Your task to perform on an android device: turn on javascript in the chrome app Image 0: 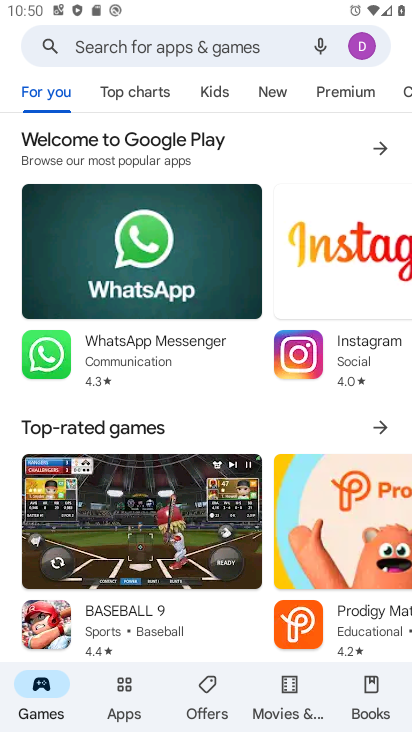
Step 0: press home button
Your task to perform on an android device: turn on javascript in the chrome app Image 1: 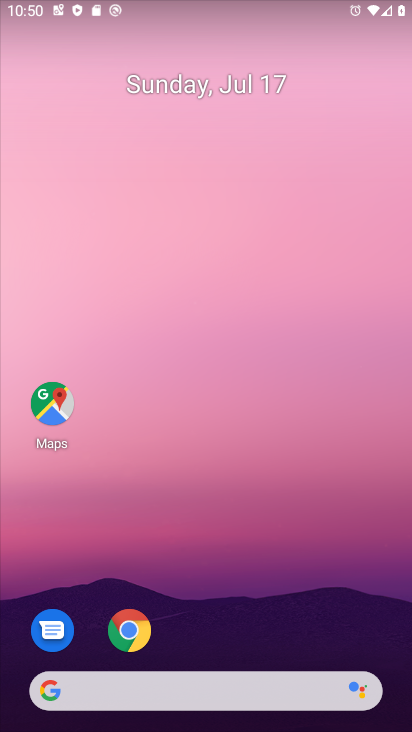
Step 1: drag from (359, 564) to (382, 55)
Your task to perform on an android device: turn on javascript in the chrome app Image 2: 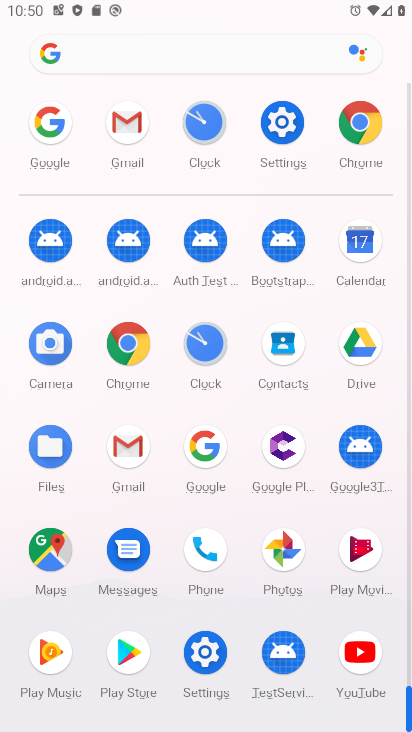
Step 2: click (140, 346)
Your task to perform on an android device: turn on javascript in the chrome app Image 3: 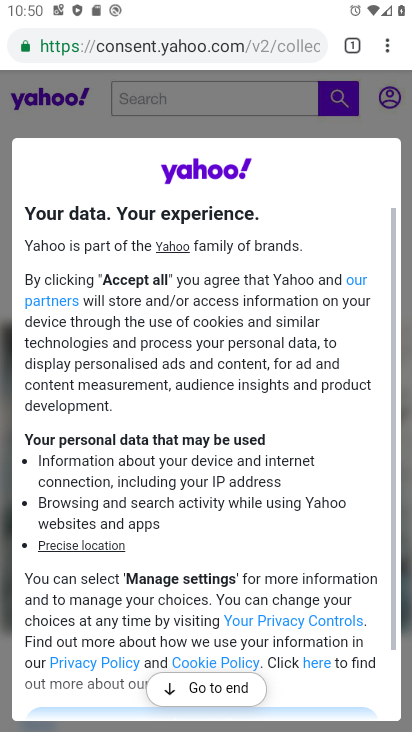
Step 3: click (386, 49)
Your task to perform on an android device: turn on javascript in the chrome app Image 4: 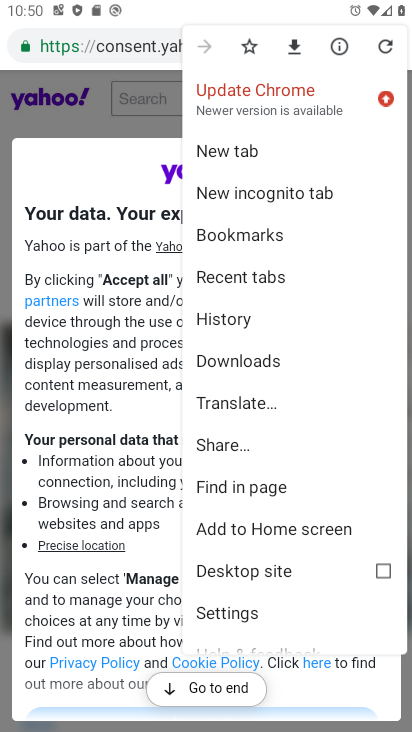
Step 4: click (251, 614)
Your task to perform on an android device: turn on javascript in the chrome app Image 5: 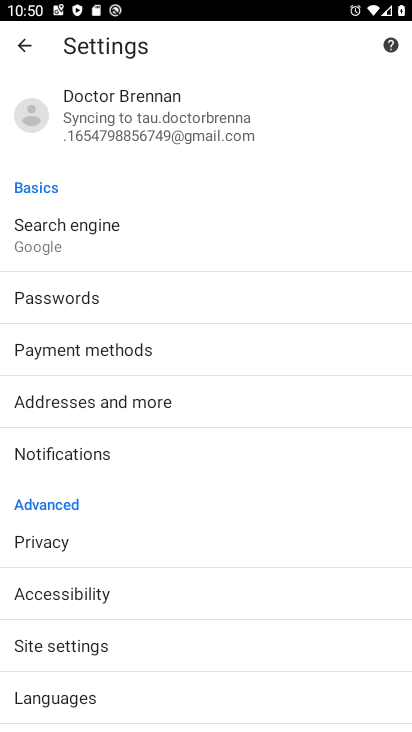
Step 5: drag from (278, 612) to (269, 359)
Your task to perform on an android device: turn on javascript in the chrome app Image 6: 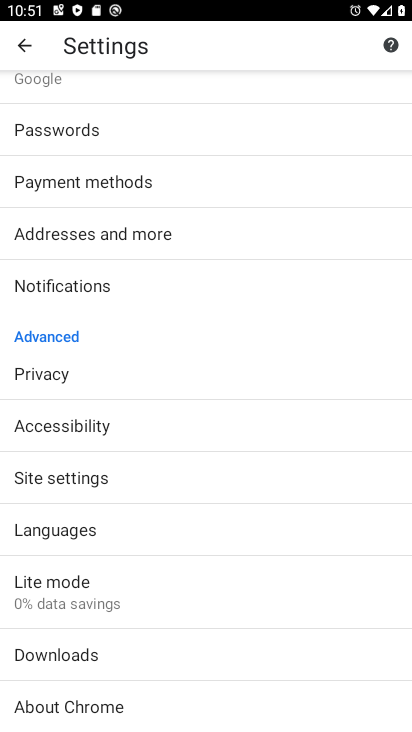
Step 6: click (197, 489)
Your task to perform on an android device: turn on javascript in the chrome app Image 7: 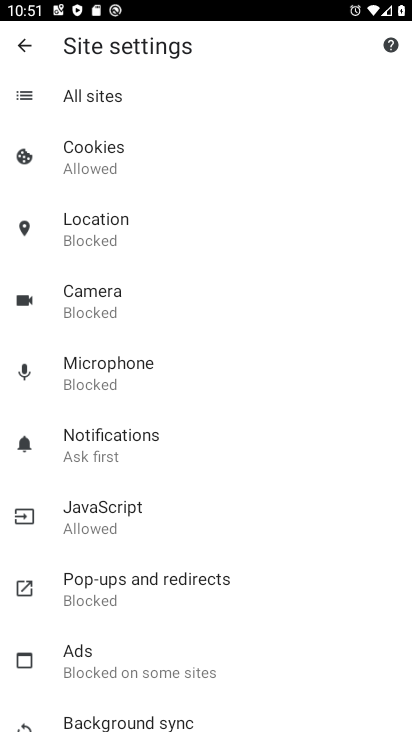
Step 7: drag from (269, 496) to (297, 344)
Your task to perform on an android device: turn on javascript in the chrome app Image 8: 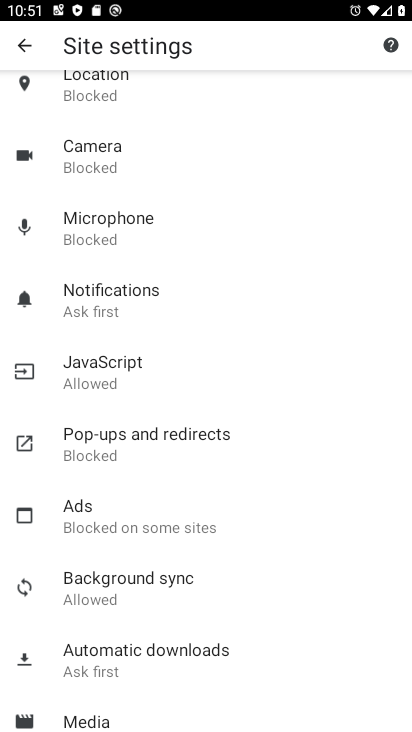
Step 8: drag from (298, 517) to (304, 287)
Your task to perform on an android device: turn on javascript in the chrome app Image 9: 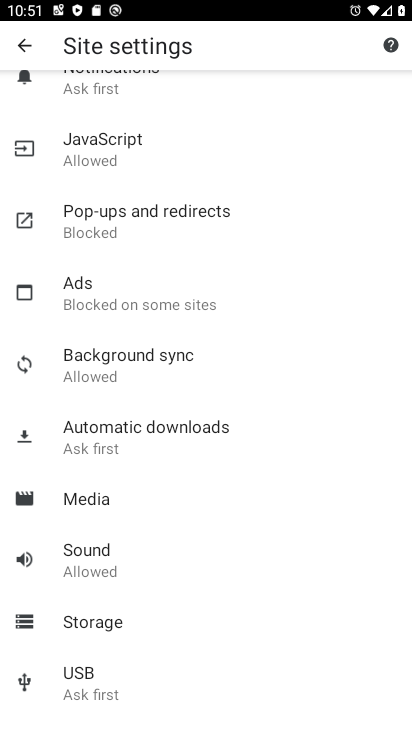
Step 9: click (161, 152)
Your task to perform on an android device: turn on javascript in the chrome app Image 10: 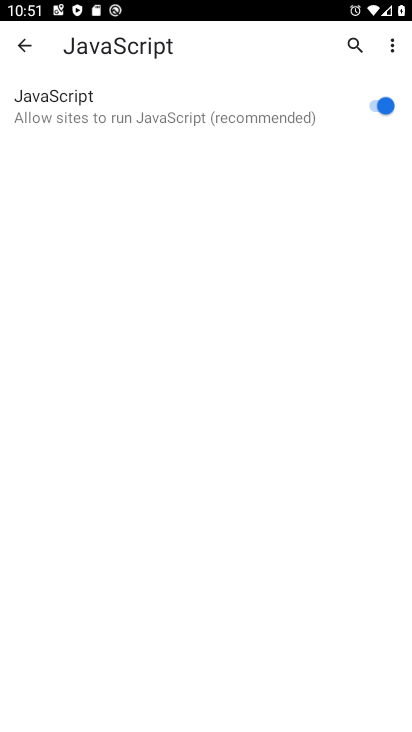
Step 10: task complete